Your task to perform on an android device: Add beats solo 3 to the cart on ebay, then select checkout. Image 0: 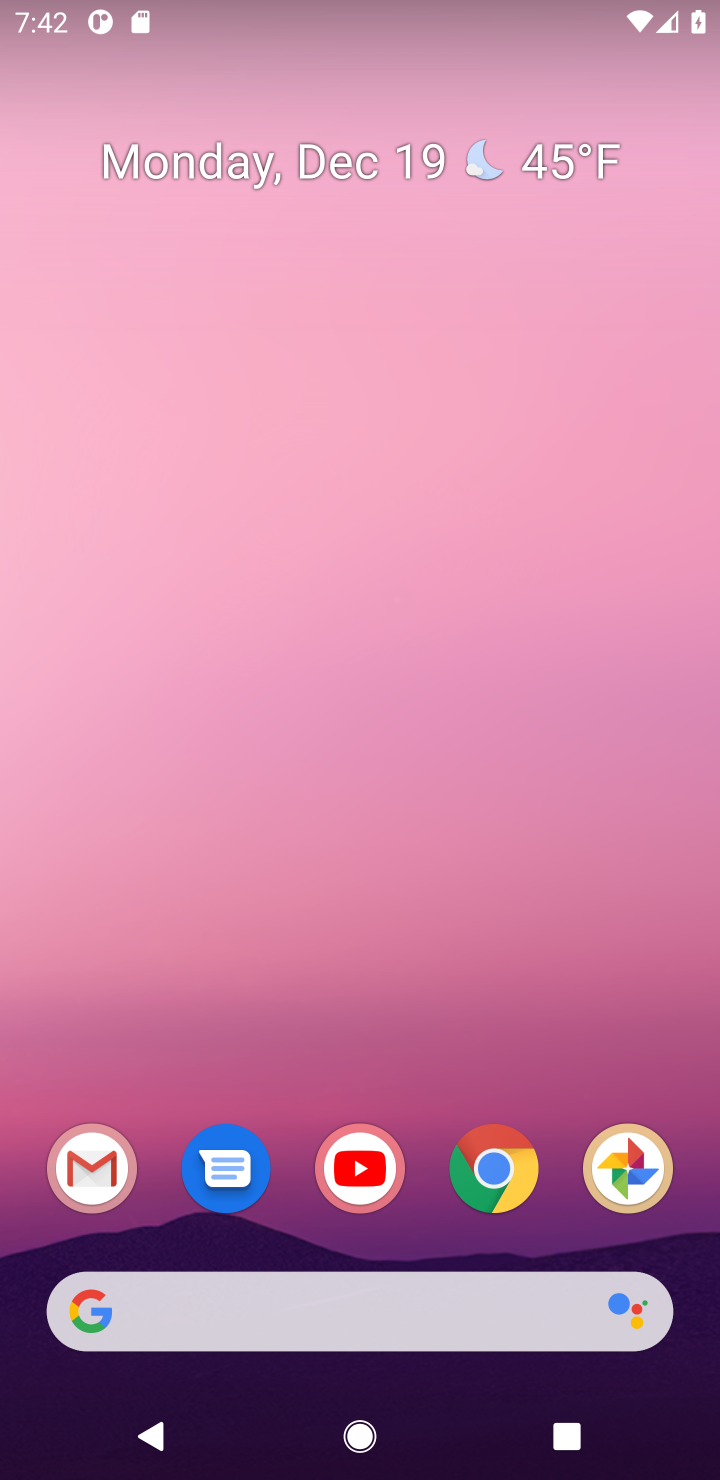
Step 0: click (504, 1182)
Your task to perform on an android device: Add beats solo 3 to the cart on ebay, then select checkout. Image 1: 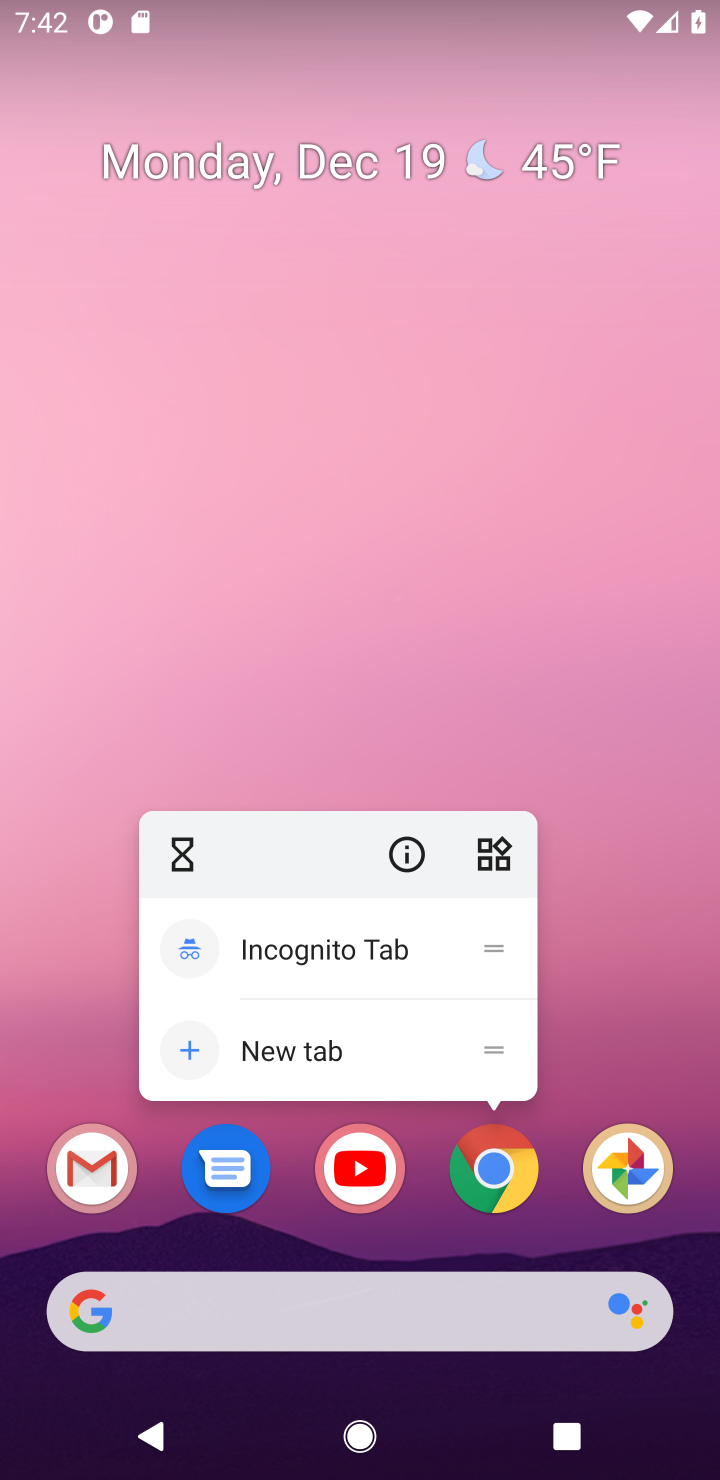
Step 1: click (504, 1182)
Your task to perform on an android device: Add beats solo 3 to the cart on ebay, then select checkout. Image 2: 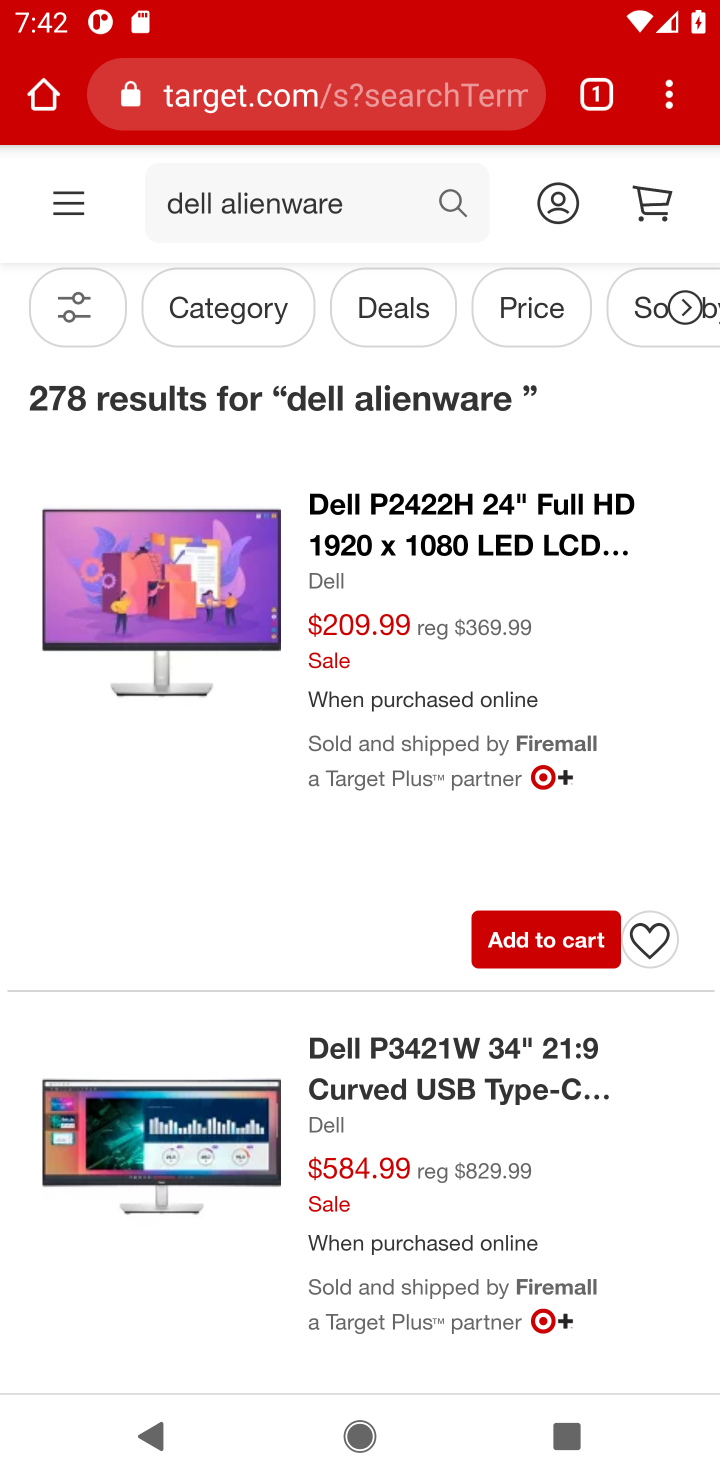
Step 2: click (300, 97)
Your task to perform on an android device: Add beats solo 3 to the cart on ebay, then select checkout. Image 3: 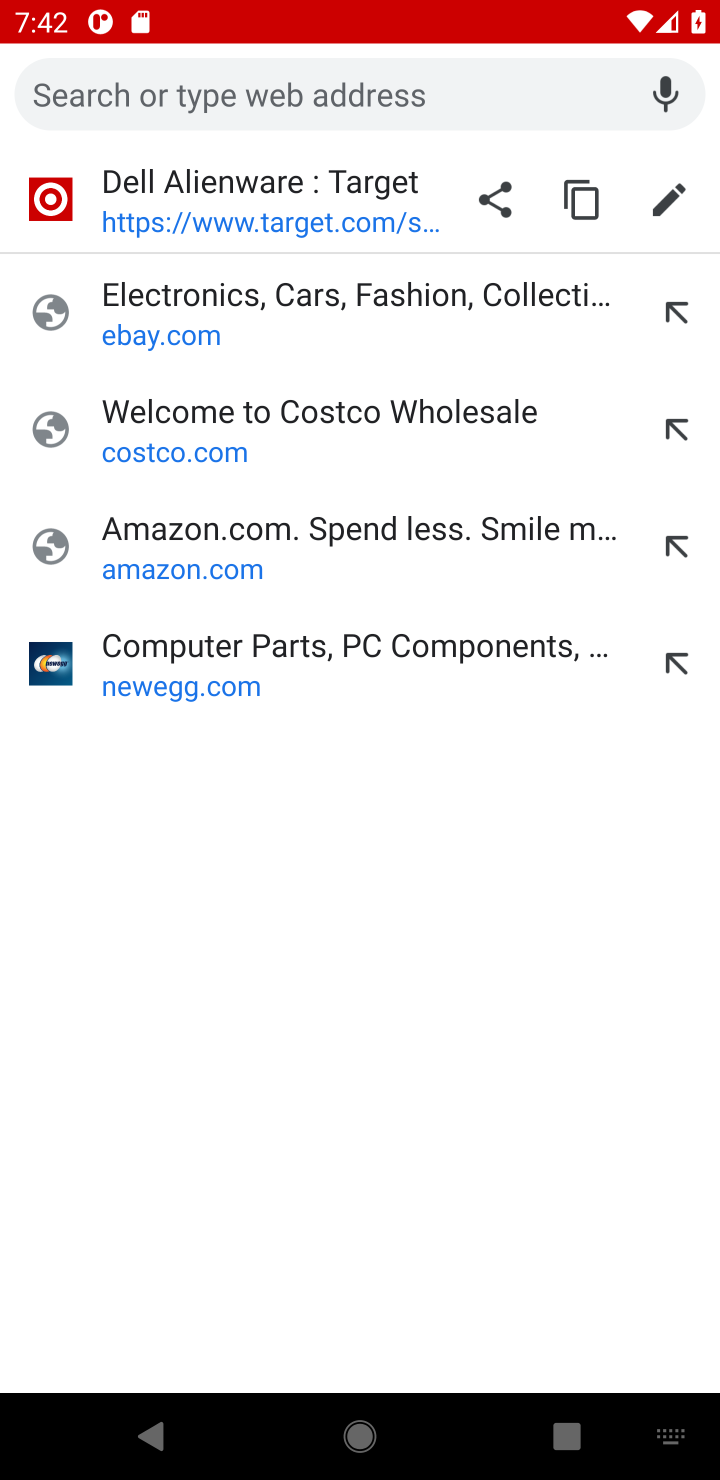
Step 3: click (151, 326)
Your task to perform on an android device: Add beats solo 3 to the cart on ebay, then select checkout. Image 4: 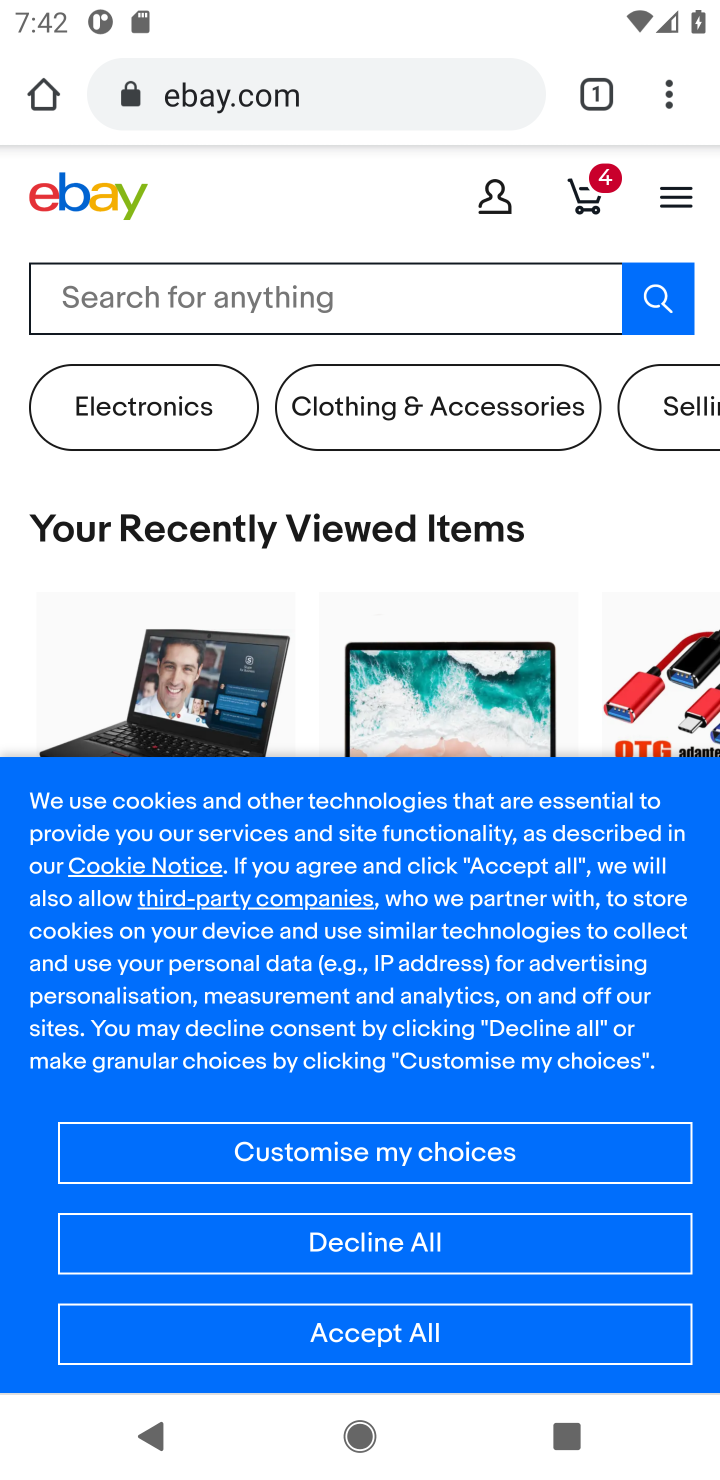
Step 4: click (112, 306)
Your task to perform on an android device: Add beats solo 3 to the cart on ebay, then select checkout. Image 5: 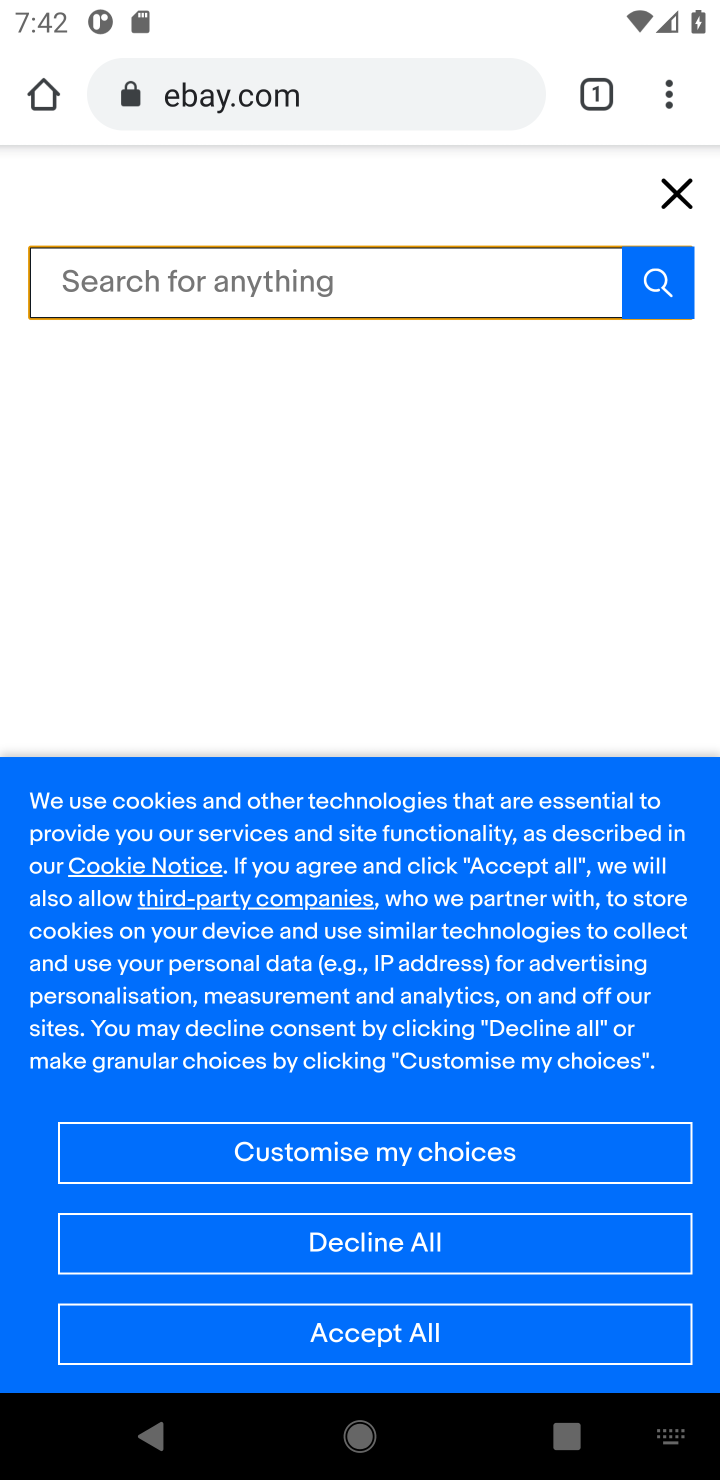
Step 5: type "beats solo 3"
Your task to perform on an android device: Add beats solo 3 to the cart on ebay, then select checkout. Image 6: 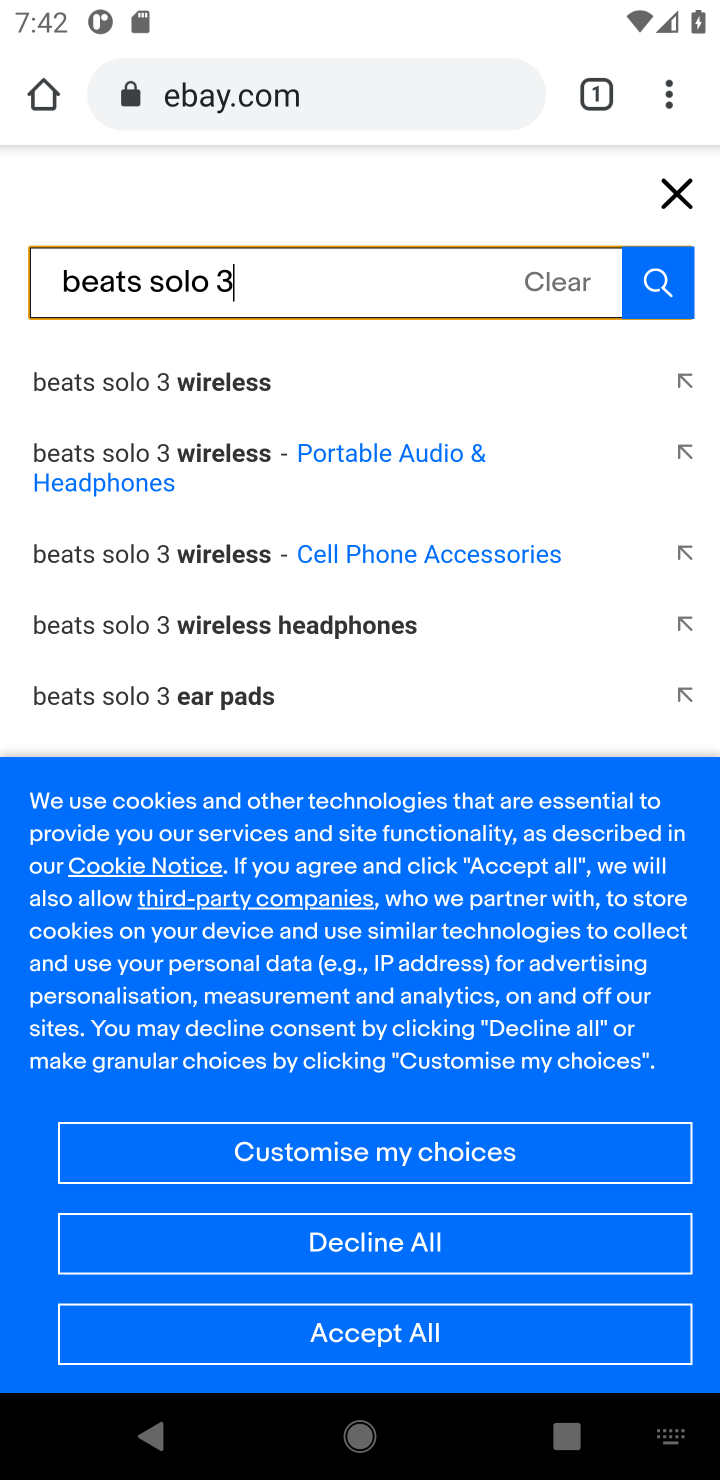
Step 6: click (656, 293)
Your task to perform on an android device: Add beats solo 3 to the cart on ebay, then select checkout. Image 7: 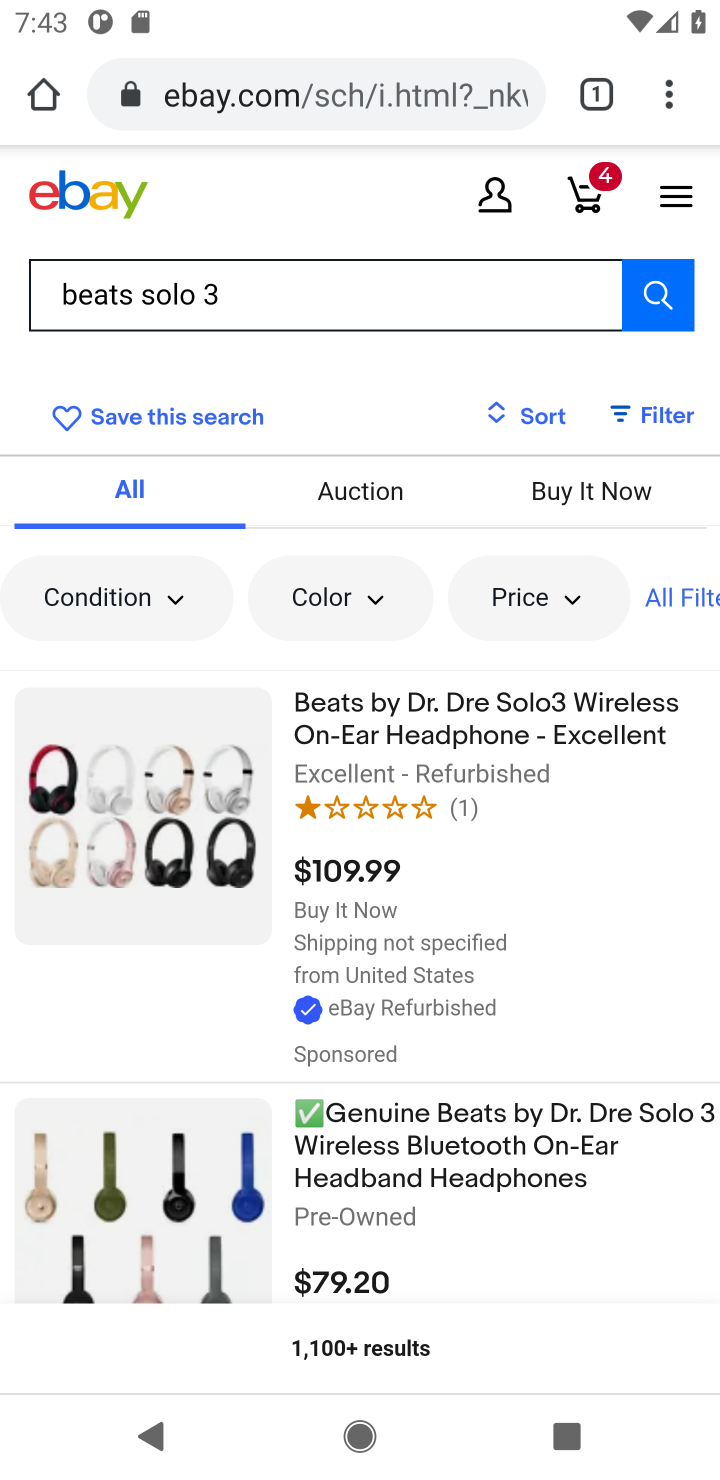
Step 7: click (388, 744)
Your task to perform on an android device: Add beats solo 3 to the cart on ebay, then select checkout. Image 8: 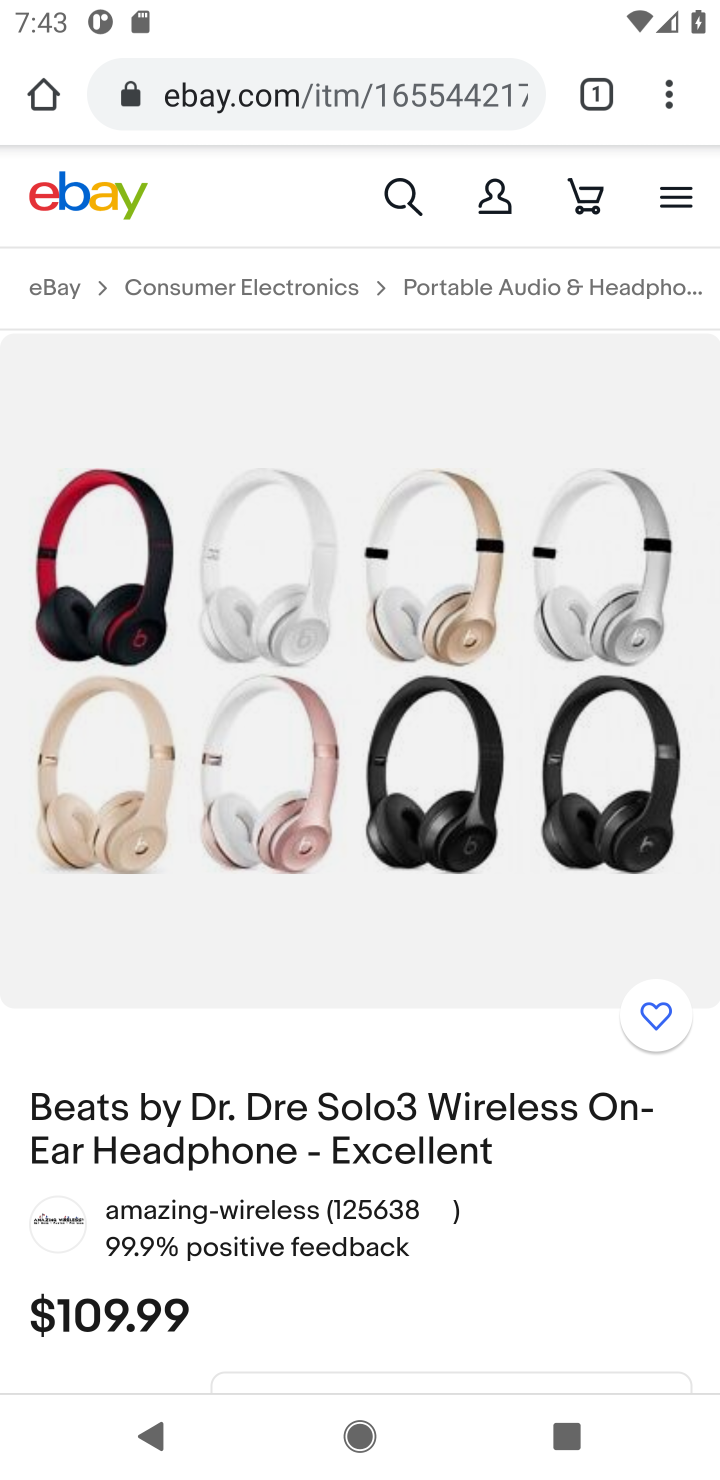
Step 8: drag from (309, 1048) to (326, 544)
Your task to perform on an android device: Add beats solo 3 to the cart on ebay, then select checkout. Image 9: 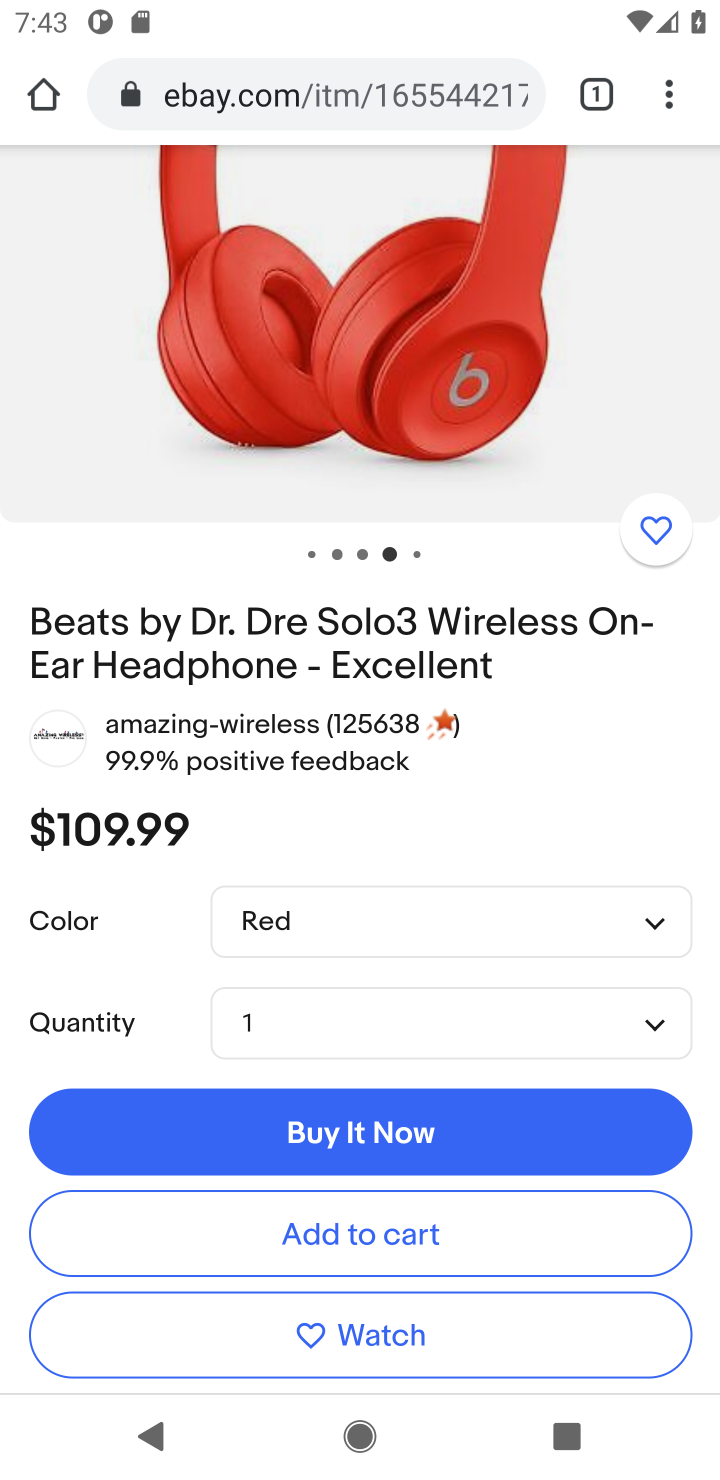
Step 9: click (307, 1229)
Your task to perform on an android device: Add beats solo 3 to the cart on ebay, then select checkout. Image 10: 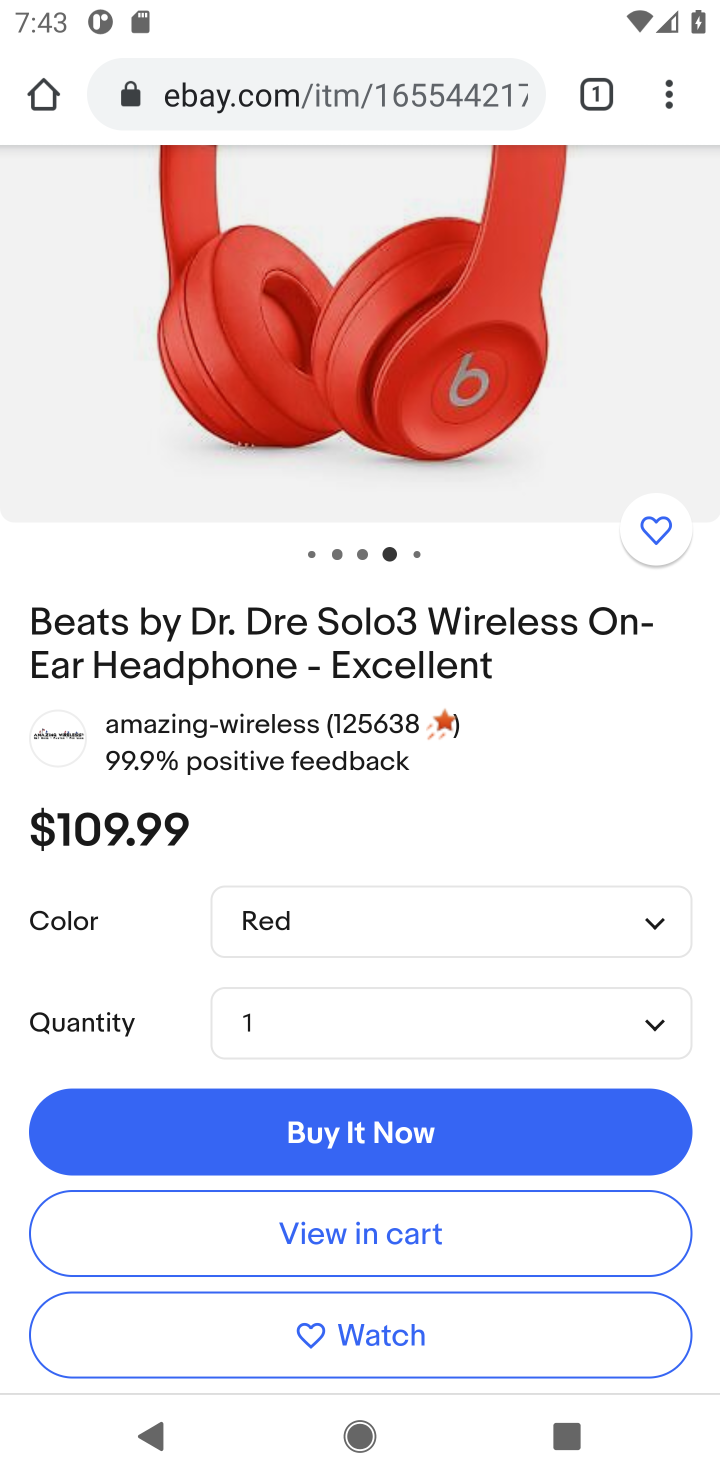
Step 10: click (307, 1229)
Your task to perform on an android device: Add beats solo 3 to the cart on ebay, then select checkout. Image 11: 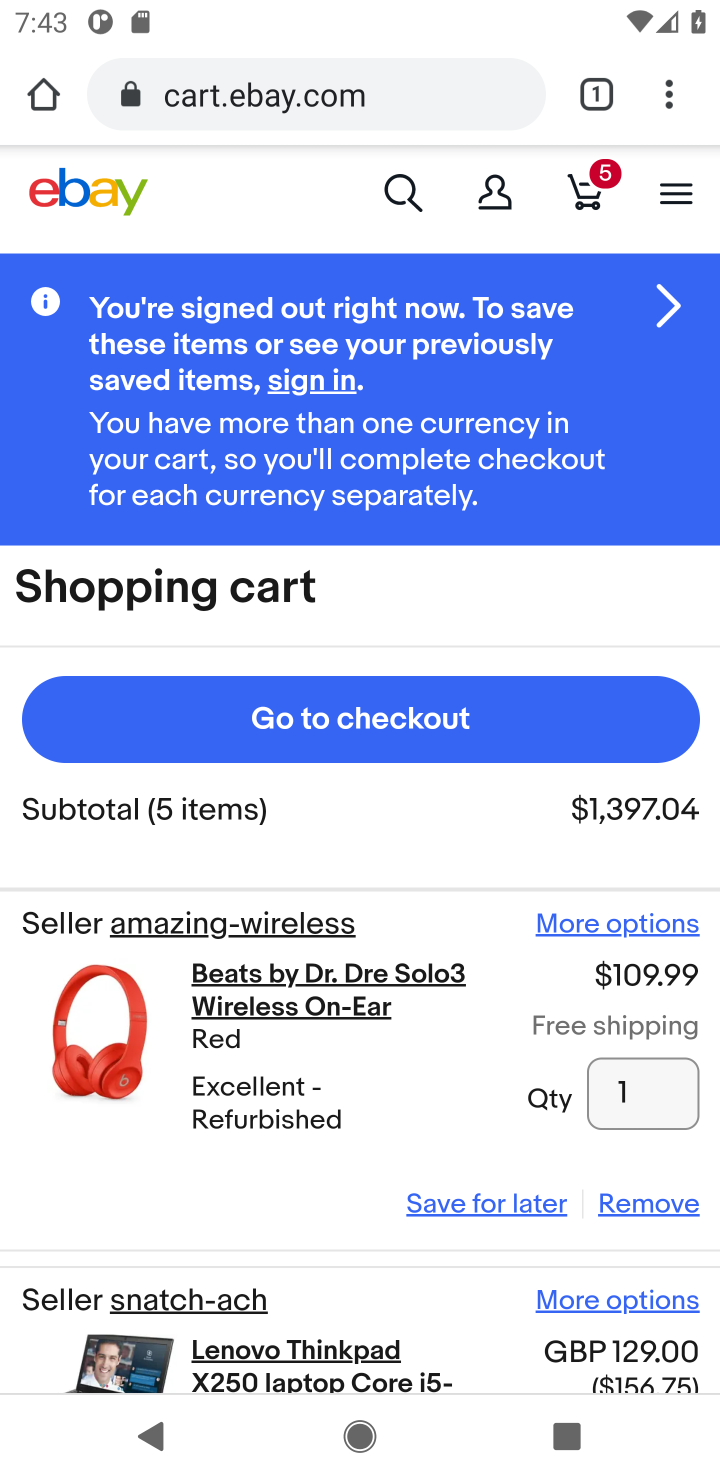
Step 11: click (293, 730)
Your task to perform on an android device: Add beats solo 3 to the cart on ebay, then select checkout. Image 12: 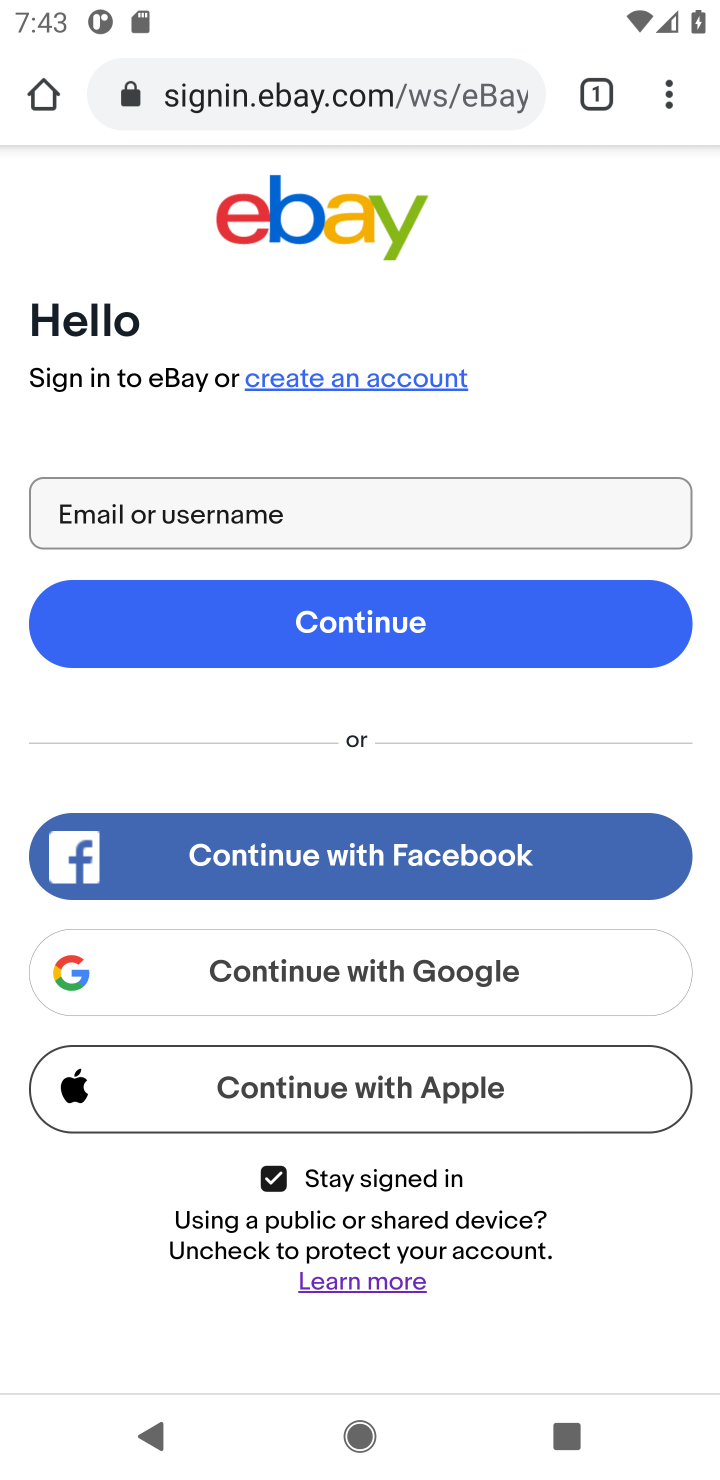
Step 12: task complete